Your task to perform on an android device: Go to eBay Image 0: 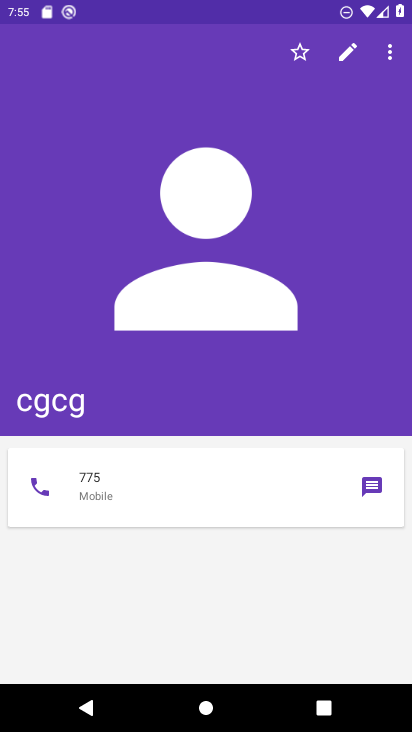
Step 0: press back button
Your task to perform on an android device: Go to eBay Image 1: 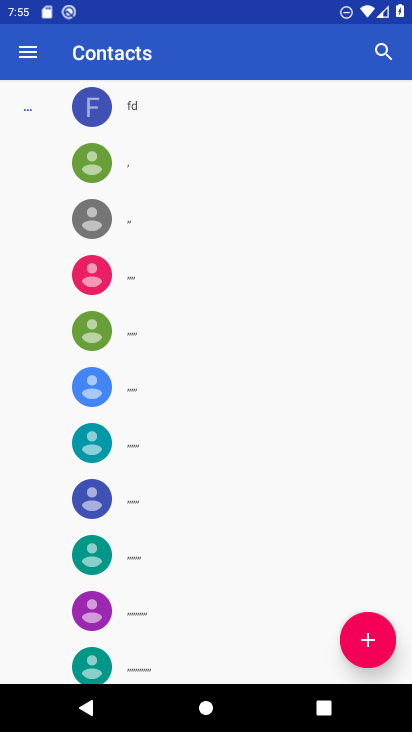
Step 1: press back button
Your task to perform on an android device: Go to eBay Image 2: 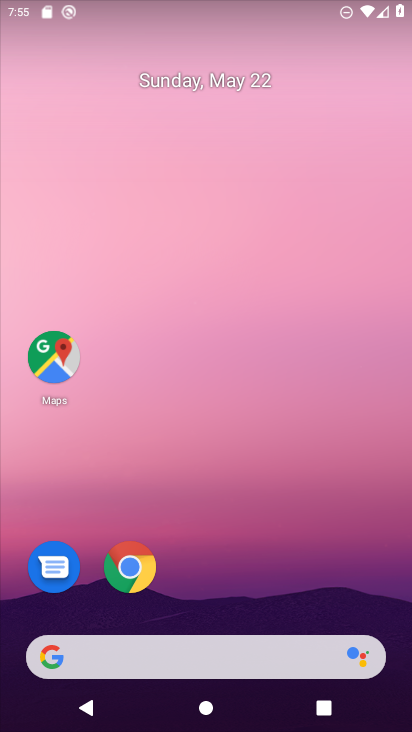
Step 2: click (133, 568)
Your task to perform on an android device: Go to eBay Image 3: 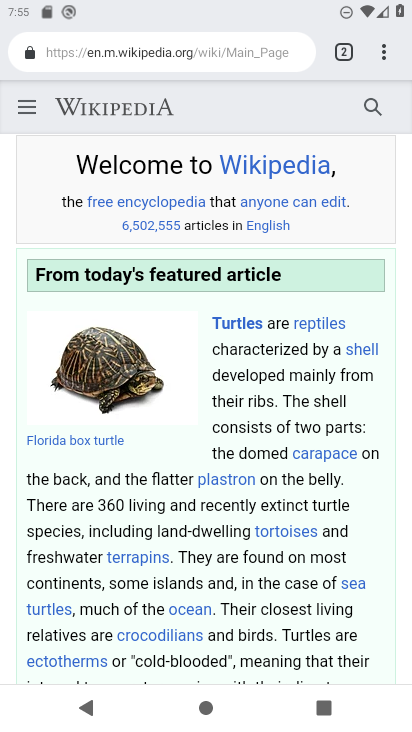
Step 3: click (336, 50)
Your task to perform on an android device: Go to eBay Image 4: 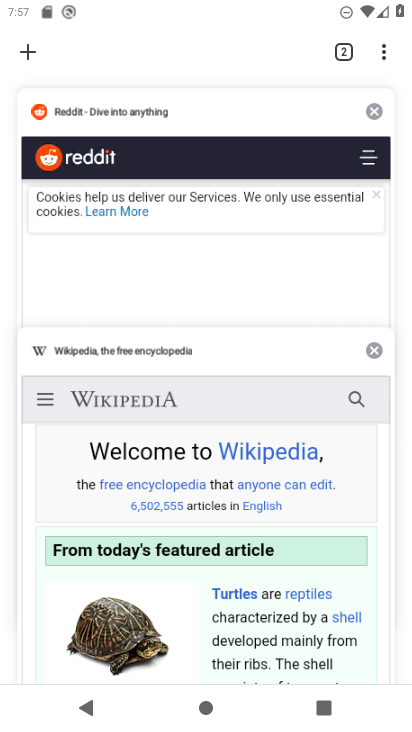
Step 4: click (22, 52)
Your task to perform on an android device: Go to eBay Image 5: 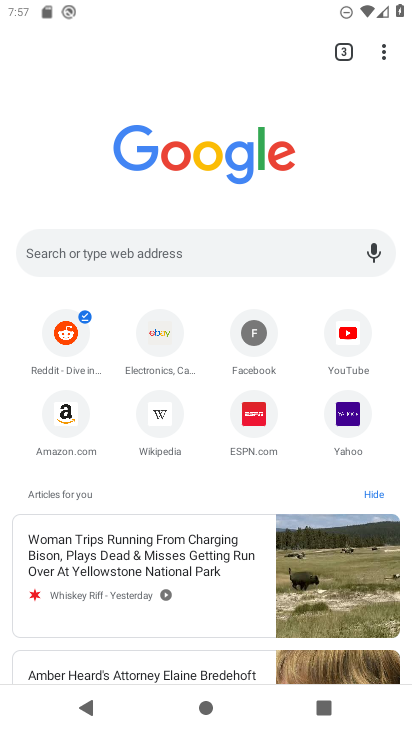
Step 5: click (152, 327)
Your task to perform on an android device: Go to eBay Image 6: 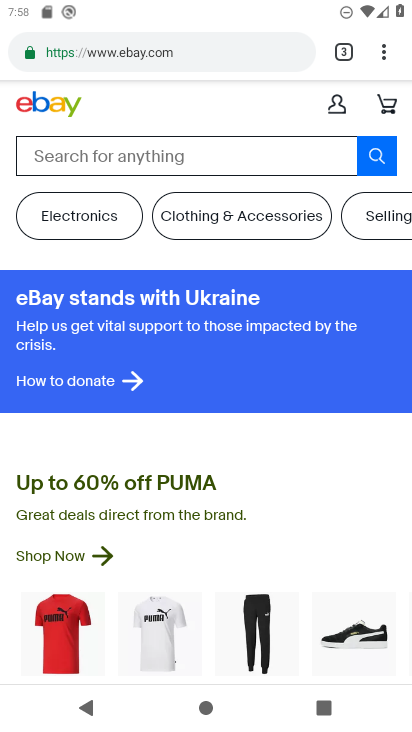
Step 6: task complete